Your task to perform on an android device: Open settings on Google Maps Image 0: 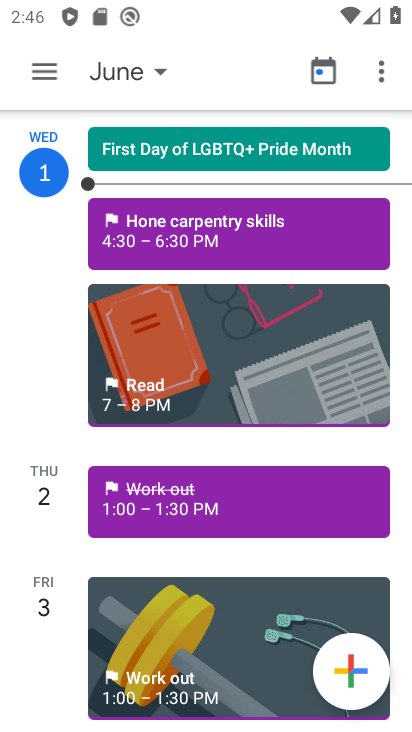
Step 0: press home button
Your task to perform on an android device: Open settings on Google Maps Image 1: 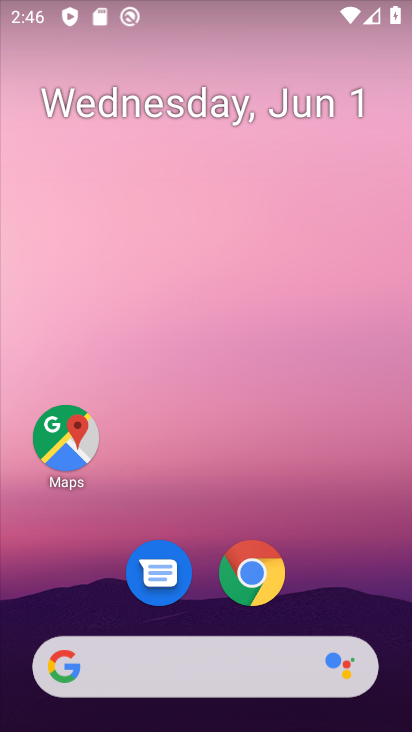
Step 1: click (49, 468)
Your task to perform on an android device: Open settings on Google Maps Image 2: 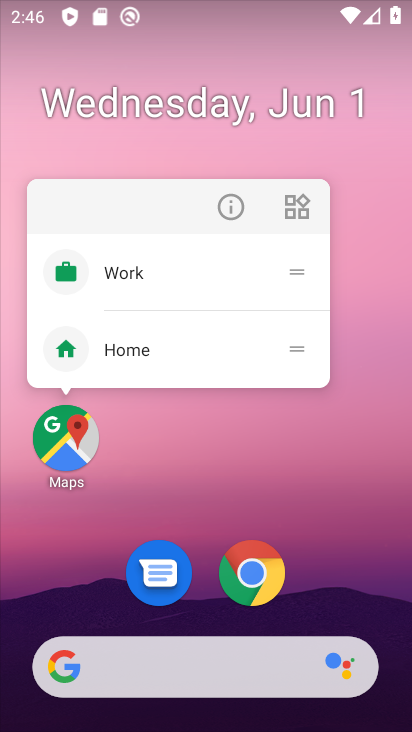
Step 2: click (57, 459)
Your task to perform on an android device: Open settings on Google Maps Image 3: 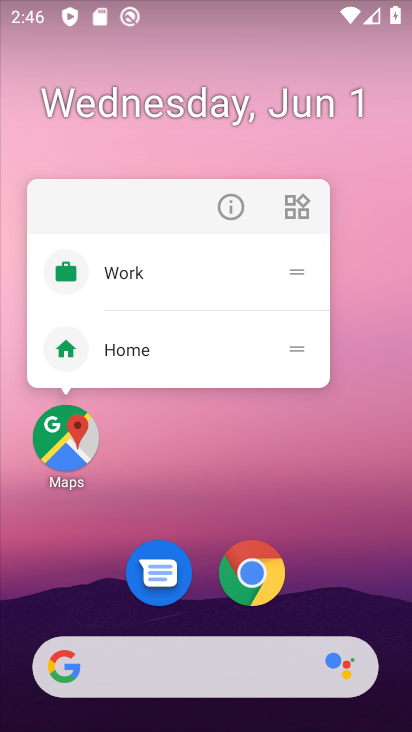
Step 3: click (58, 459)
Your task to perform on an android device: Open settings on Google Maps Image 4: 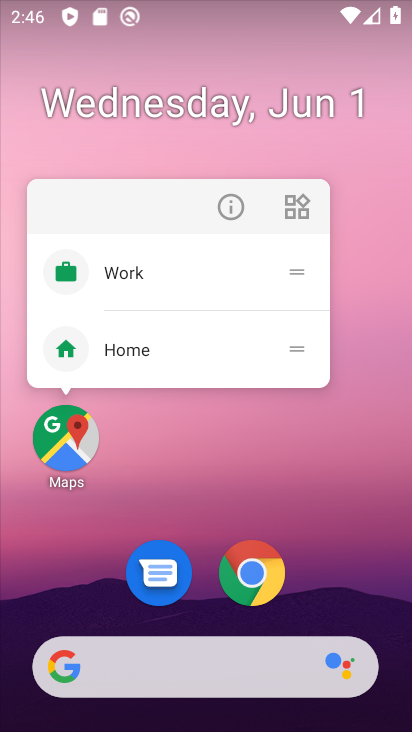
Step 4: click (70, 430)
Your task to perform on an android device: Open settings on Google Maps Image 5: 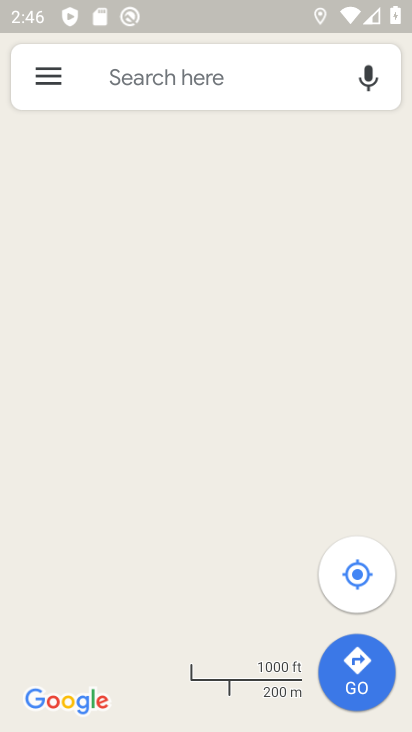
Step 5: click (45, 87)
Your task to perform on an android device: Open settings on Google Maps Image 6: 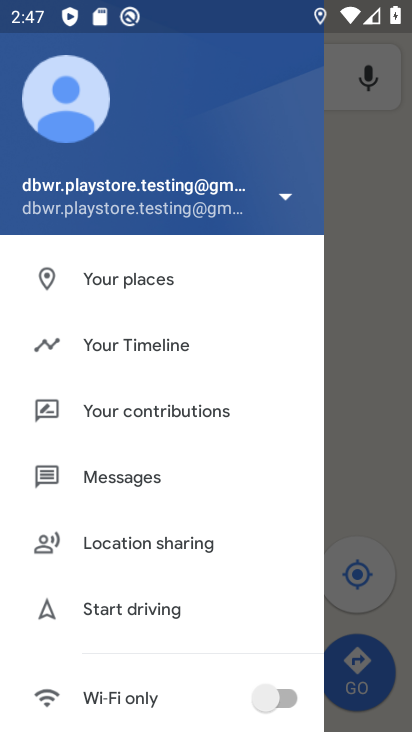
Step 6: drag from (138, 652) to (202, 241)
Your task to perform on an android device: Open settings on Google Maps Image 7: 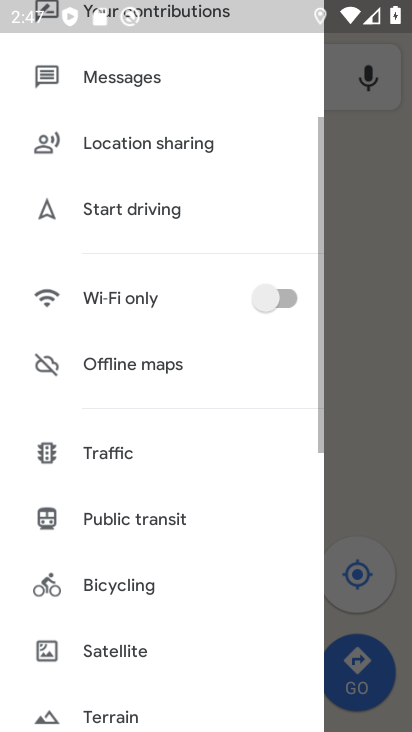
Step 7: drag from (179, 623) to (242, 353)
Your task to perform on an android device: Open settings on Google Maps Image 8: 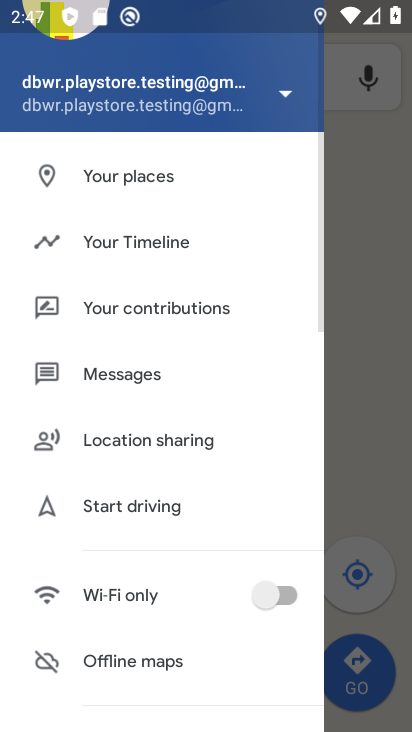
Step 8: drag from (113, 682) to (175, 329)
Your task to perform on an android device: Open settings on Google Maps Image 9: 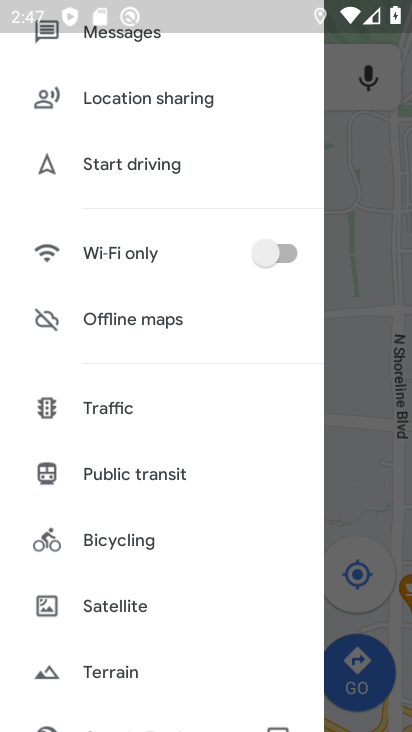
Step 9: drag from (124, 719) to (173, 350)
Your task to perform on an android device: Open settings on Google Maps Image 10: 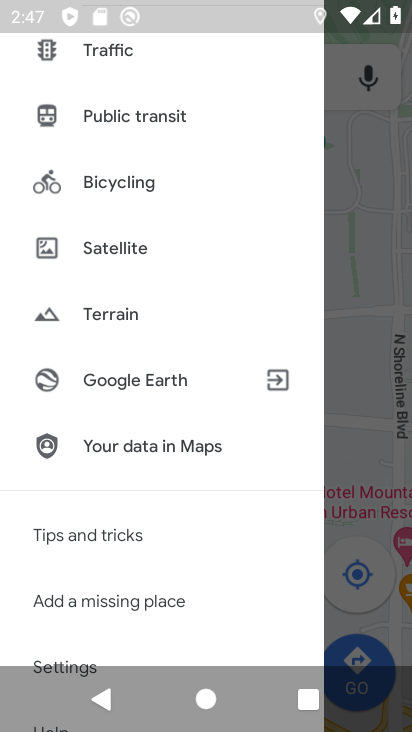
Step 10: drag from (129, 643) to (171, 390)
Your task to perform on an android device: Open settings on Google Maps Image 11: 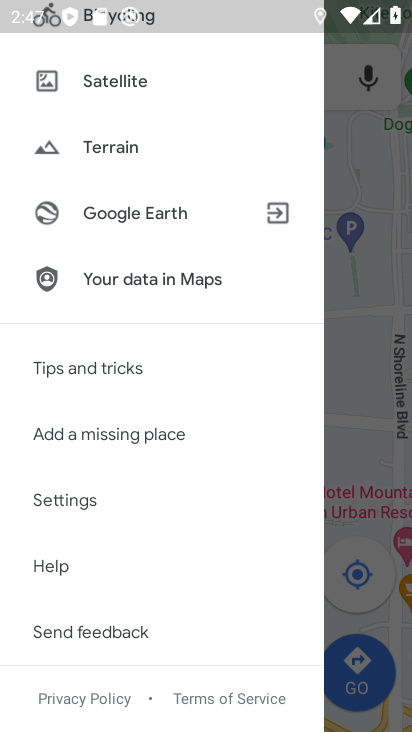
Step 11: click (112, 513)
Your task to perform on an android device: Open settings on Google Maps Image 12: 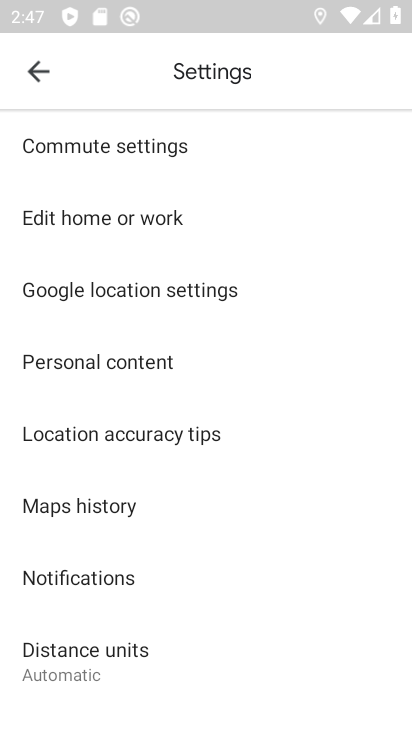
Step 12: task complete